Your task to perform on an android device: turn off priority inbox in the gmail app Image 0: 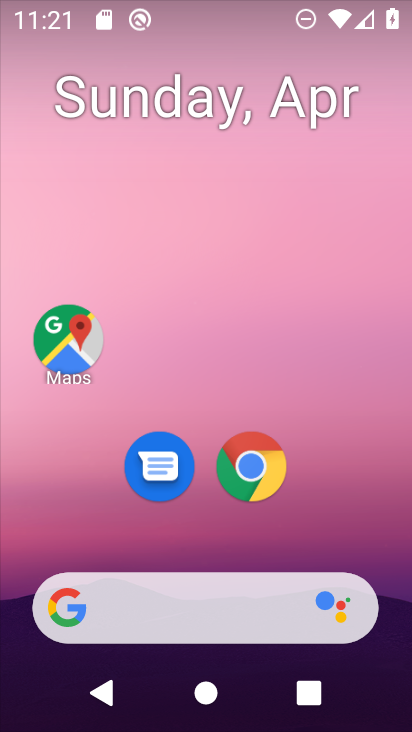
Step 0: drag from (375, 523) to (363, 139)
Your task to perform on an android device: turn off priority inbox in the gmail app Image 1: 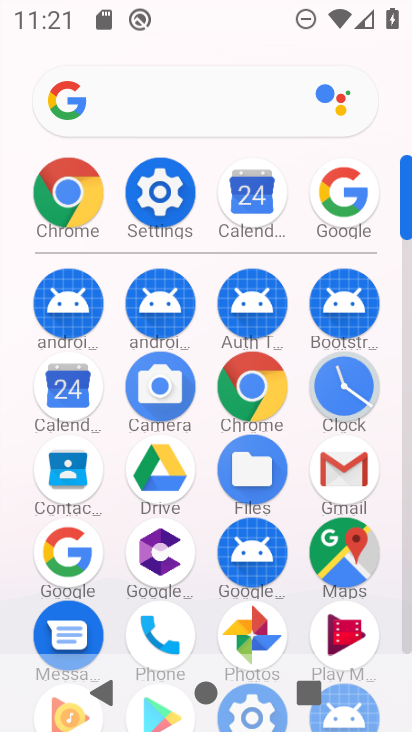
Step 1: click (355, 478)
Your task to perform on an android device: turn off priority inbox in the gmail app Image 2: 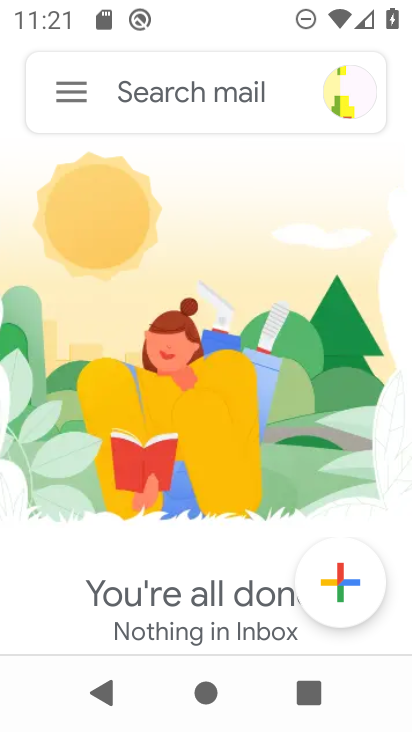
Step 2: click (67, 106)
Your task to perform on an android device: turn off priority inbox in the gmail app Image 3: 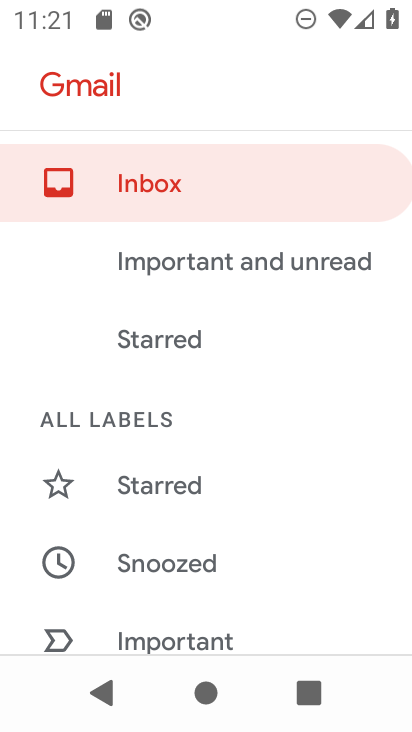
Step 3: drag from (332, 495) to (329, 321)
Your task to perform on an android device: turn off priority inbox in the gmail app Image 4: 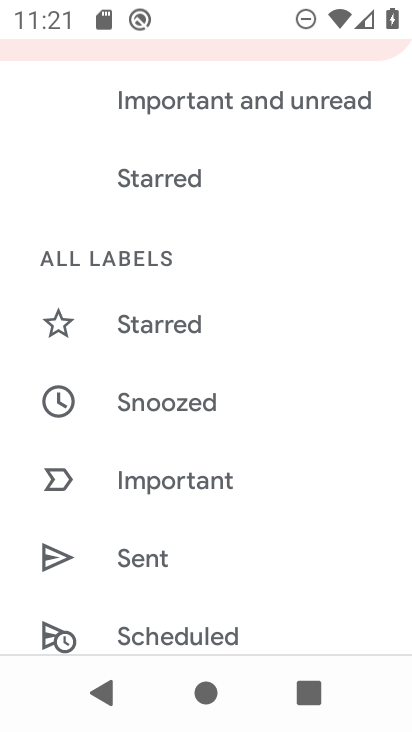
Step 4: drag from (320, 507) to (330, 382)
Your task to perform on an android device: turn off priority inbox in the gmail app Image 5: 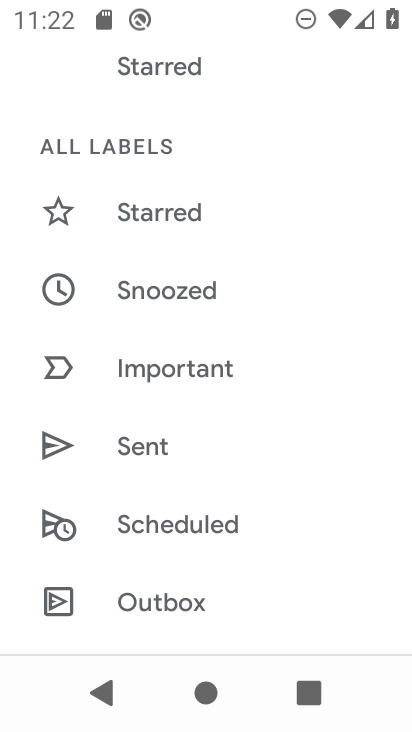
Step 5: drag from (331, 539) to (338, 412)
Your task to perform on an android device: turn off priority inbox in the gmail app Image 6: 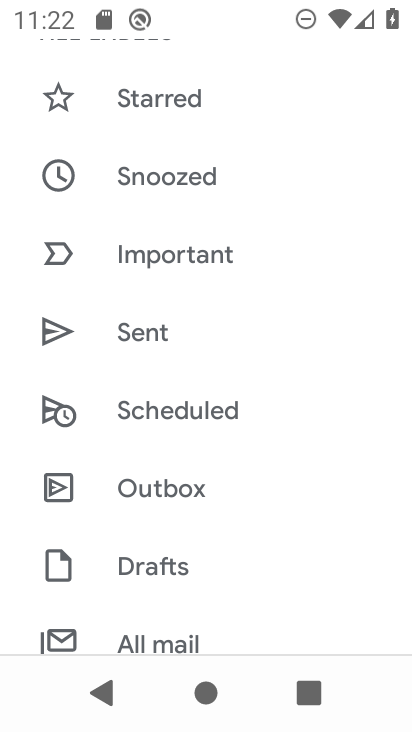
Step 6: drag from (314, 556) to (315, 418)
Your task to perform on an android device: turn off priority inbox in the gmail app Image 7: 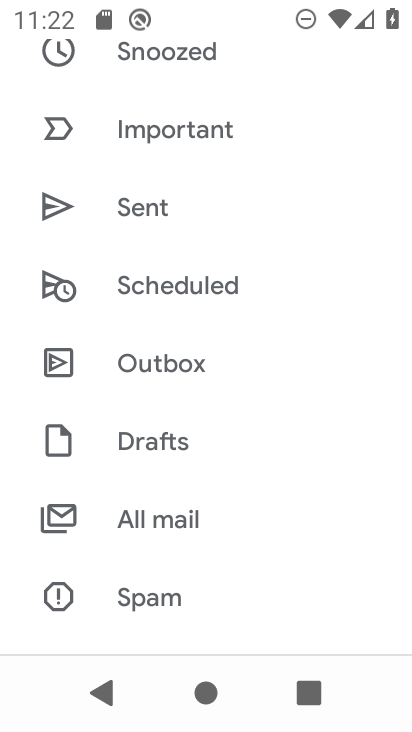
Step 7: drag from (321, 568) to (323, 433)
Your task to perform on an android device: turn off priority inbox in the gmail app Image 8: 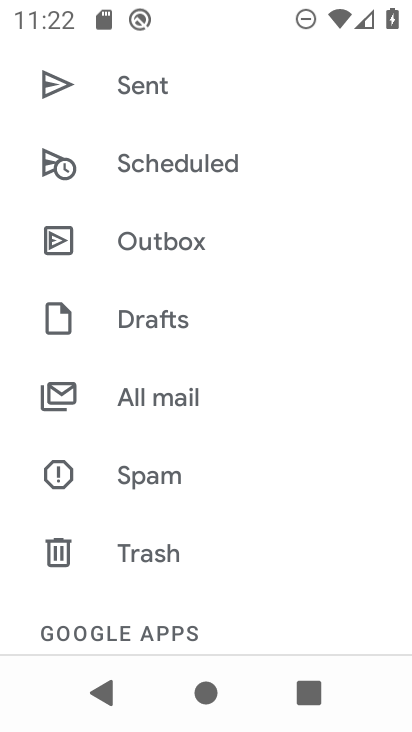
Step 8: drag from (298, 584) to (334, 292)
Your task to perform on an android device: turn off priority inbox in the gmail app Image 9: 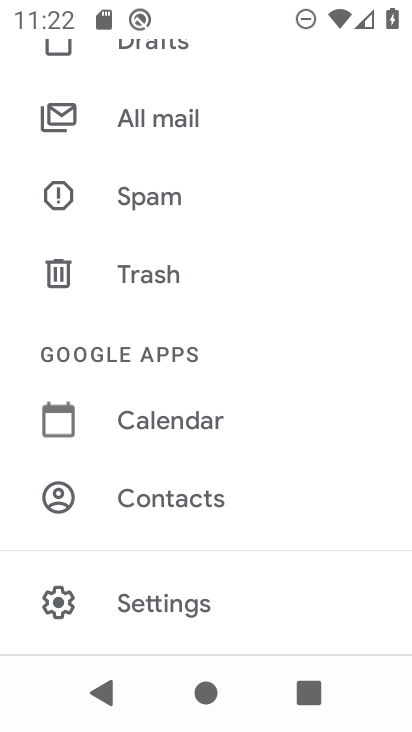
Step 9: drag from (332, 565) to (331, 426)
Your task to perform on an android device: turn off priority inbox in the gmail app Image 10: 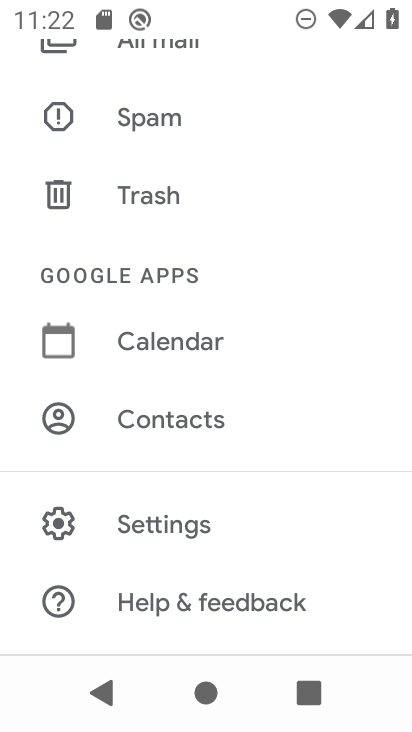
Step 10: click (202, 519)
Your task to perform on an android device: turn off priority inbox in the gmail app Image 11: 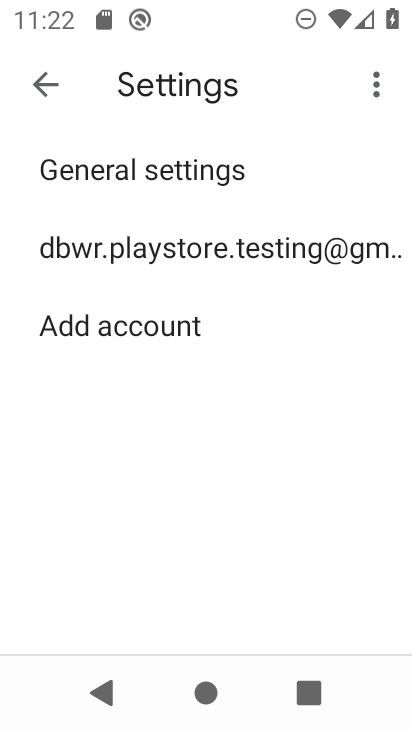
Step 11: click (223, 246)
Your task to perform on an android device: turn off priority inbox in the gmail app Image 12: 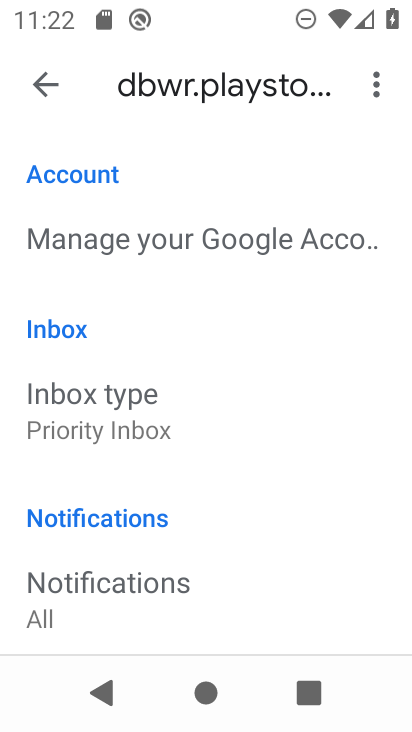
Step 12: click (66, 423)
Your task to perform on an android device: turn off priority inbox in the gmail app Image 13: 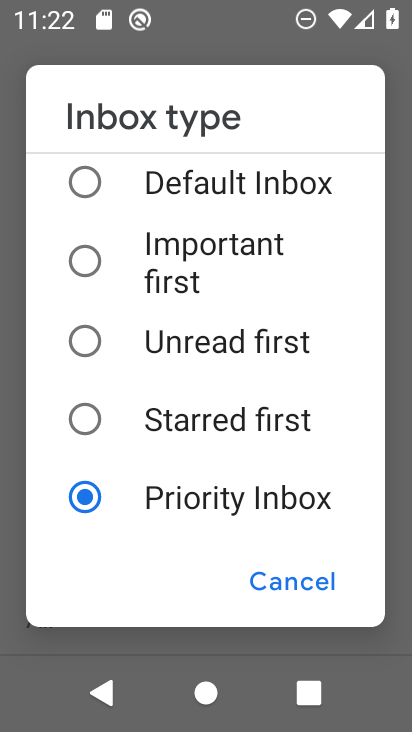
Step 13: click (83, 183)
Your task to perform on an android device: turn off priority inbox in the gmail app Image 14: 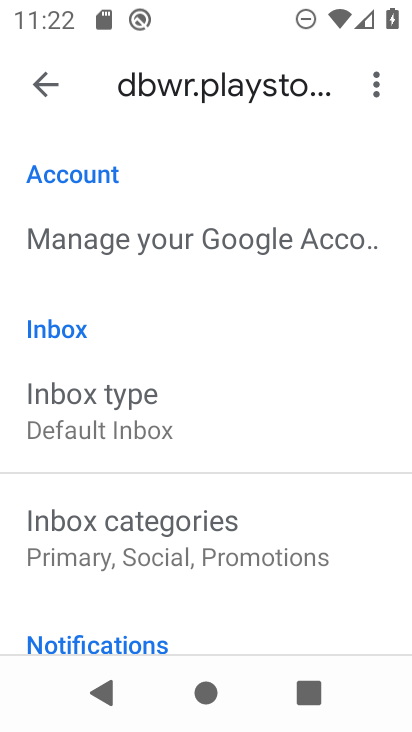
Step 14: task complete